Your task to perform on an android device: check google app version Image 0: 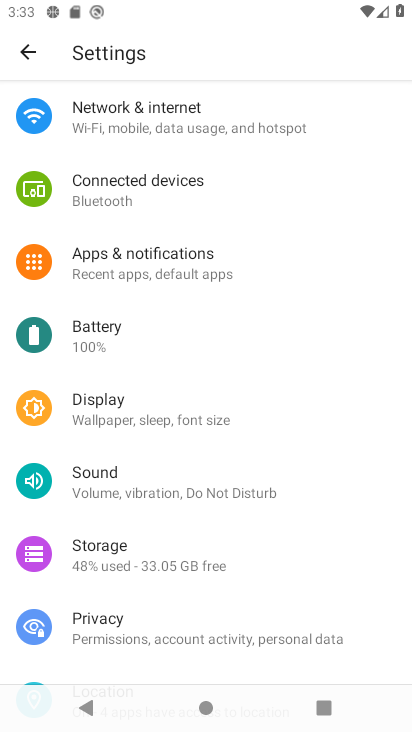
Step 0: press home button
Your task to perform on an android device: check google app version Image 1: 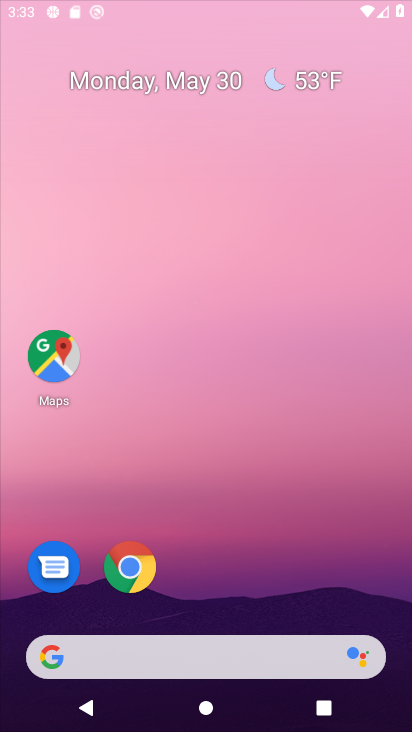
Step 1: drag from (311, 708) to (364, 139)
Your task to perform on an android device: check google app version Image 2: 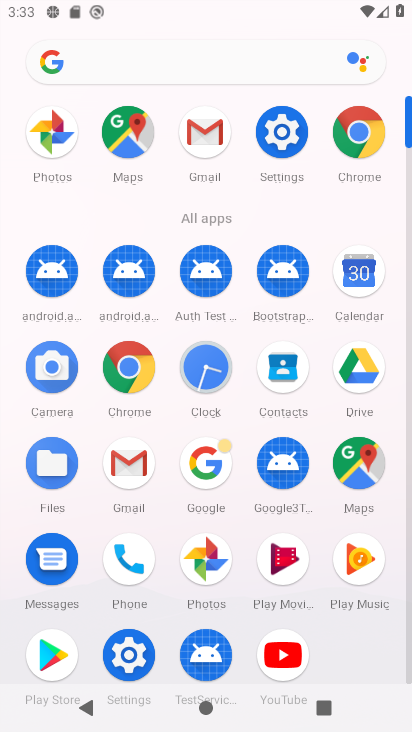
Step 2: click (199, 486)
Your task to perform on an android device: check google app version Image 3: 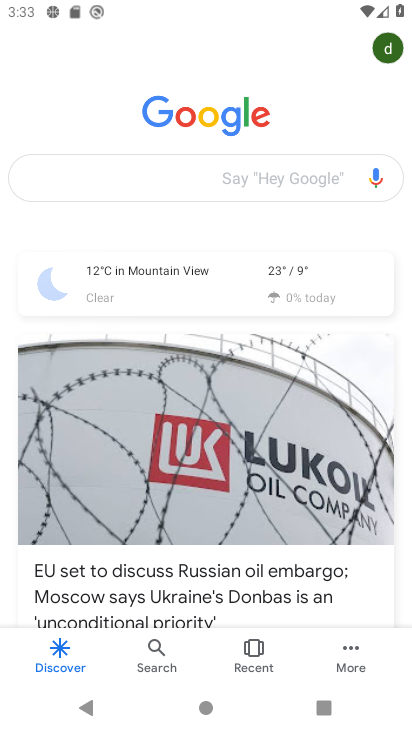
Step 3: click (368, 645)
Your task to perform on an android device: check google app version Image 4: 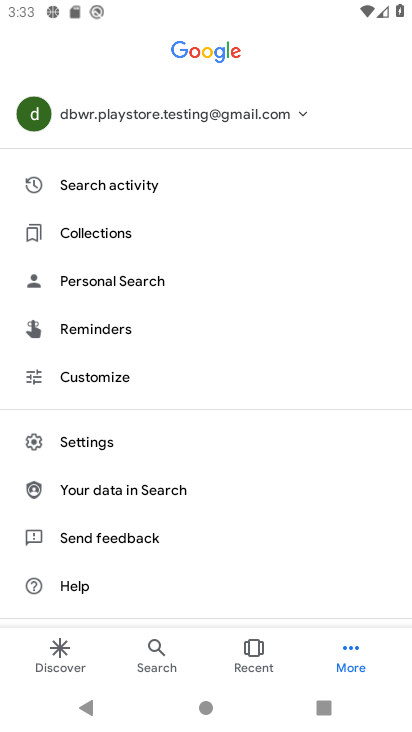
Step 4: click (116, 591)
Your task to perform on an android device: check google app version Image 5: 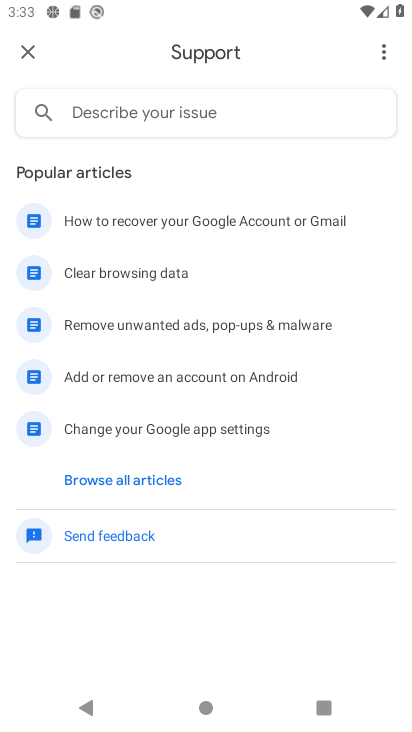
Step 5: click (382, 44)
Your task to perform on an android device: check google app version Image 6: 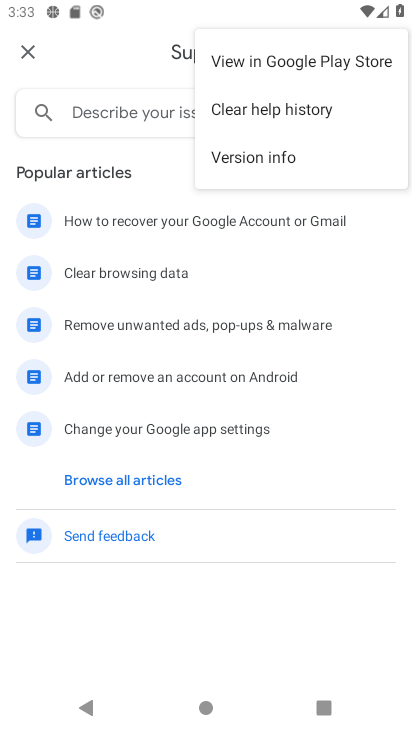
Step 6: click (328, 156)
Your task to perform on an android device: check google app version Image 7: 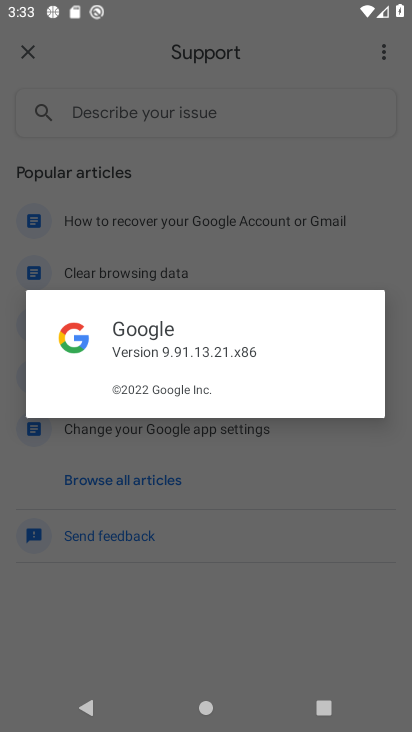
Step 7: task complete